Your task to perform on an android device: Show me productivity apps on the Play Store Image 0: 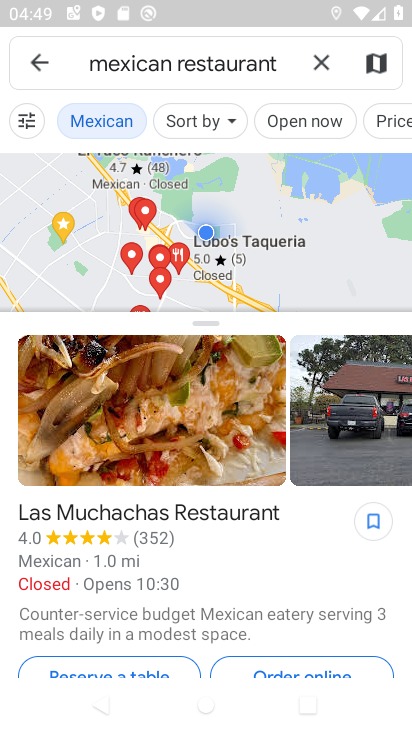
Step 0: press home button
Your task to perform on an android device: Show me productivity apps on the Play Store Image 1: 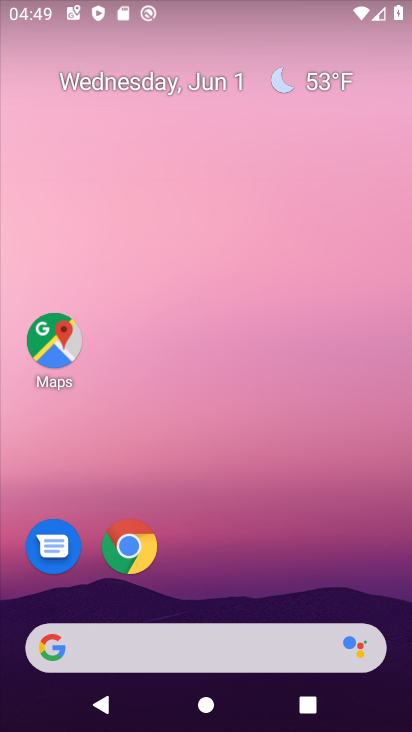
Step 1: drag from (247, 522) to (167, 153)
Your task to perform on an android device: Show me productivity apps on the Play Store Image 2: 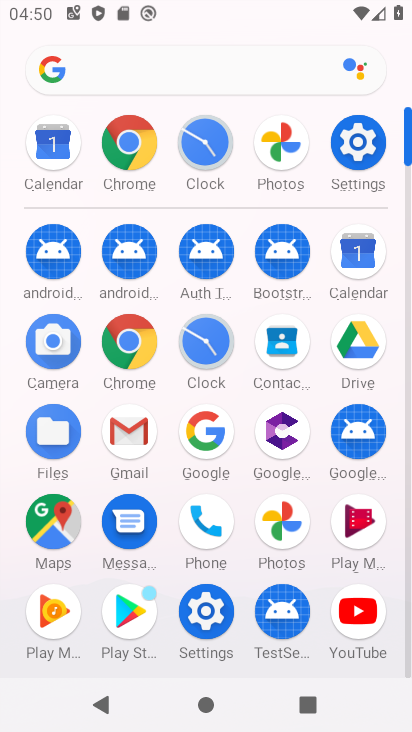
Step 2: click (128, 615)
Your task to perform on an android device: Show me productivity apps on the Play Store Image 3: 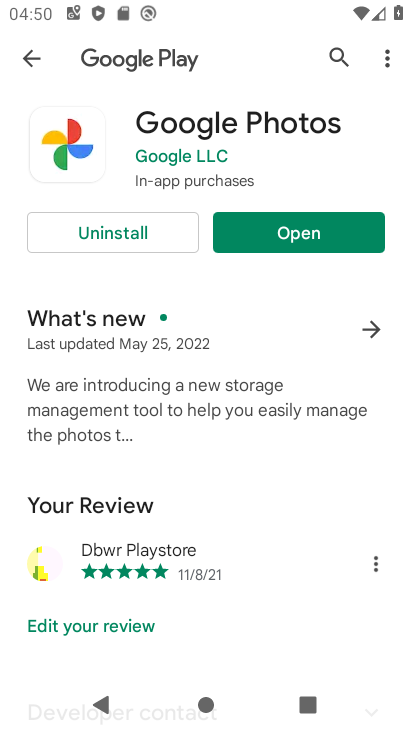
Step 3: click (30, 54)
Your task to perform on an android device: Show me productivity apps on the Play Store Image 4: 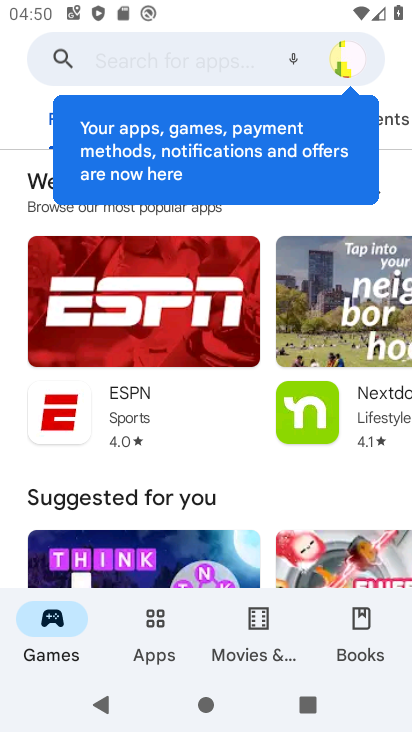
Step 4: click (147, 625)
Your task to perform on an android device: Show me productivity apps on the Play Store Image 5: 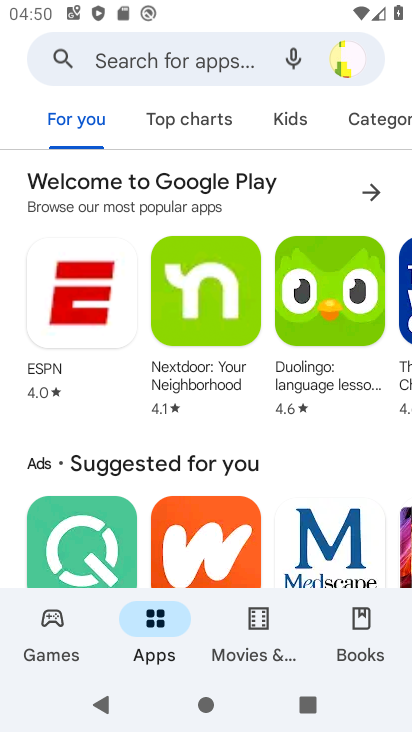
Step 5: task complete